Your task to perform on an android device: Show me recent news Image 0: 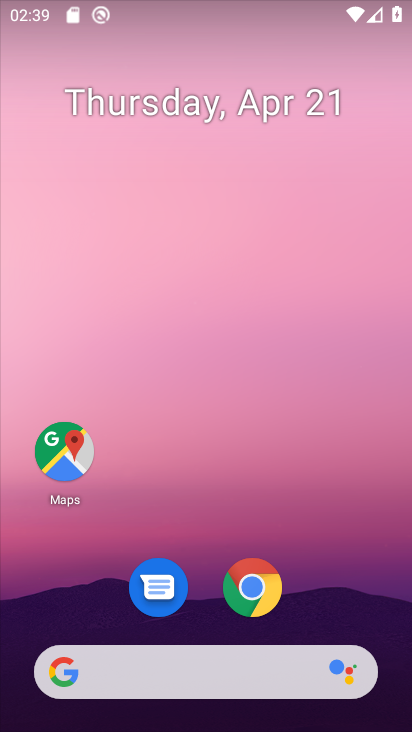
Step 0: drag from (0, 264) to (405, 347)
Your task to perform on an android device: Show me recent news Image 1: 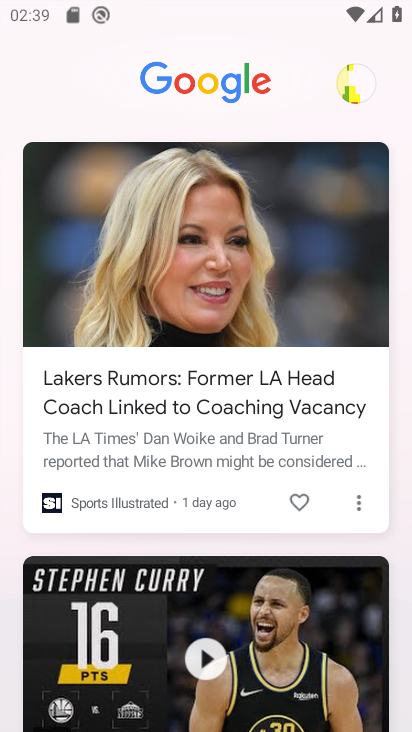
Step 1: drag from (396, 545) to (402, 354)
Your task to perform on an android device: Show me recent news Image 2: 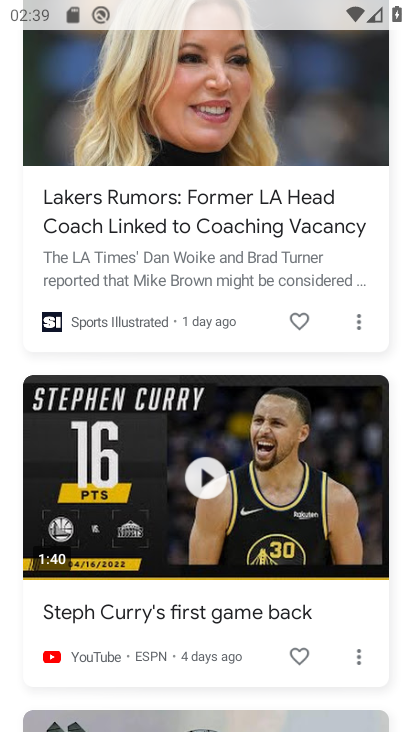
Step 2: click (401, 412)
Your task to perform on an android device: Show me recent news Image 3: 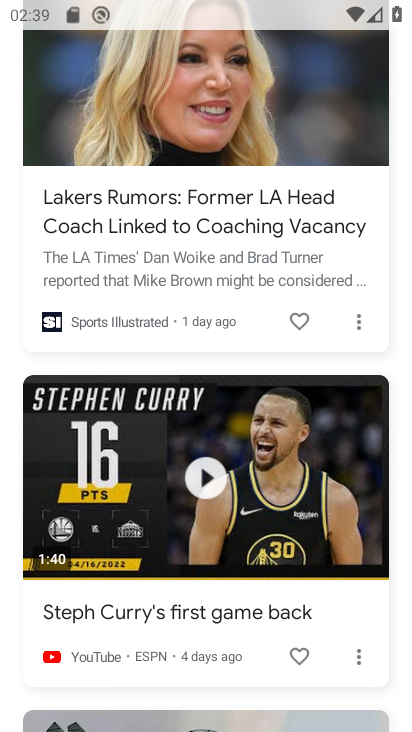
Step 3: task complete